Your task to perform on an android device: Go to calendar. Show me events next week Image 0: 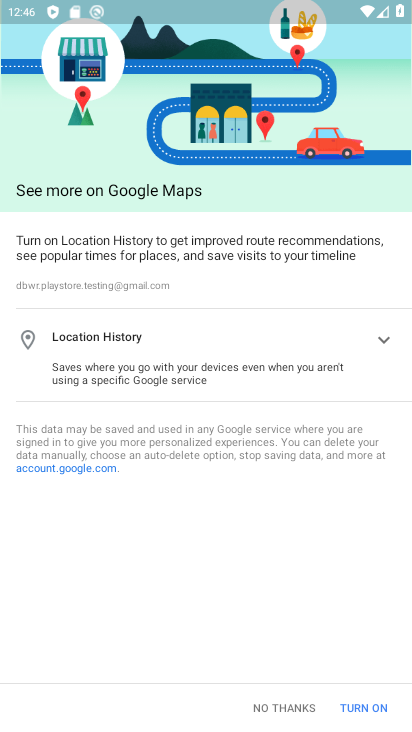
Step 0: press home button
Your task to perform on an android device: Go to calendar. Show me events next week Image 1: 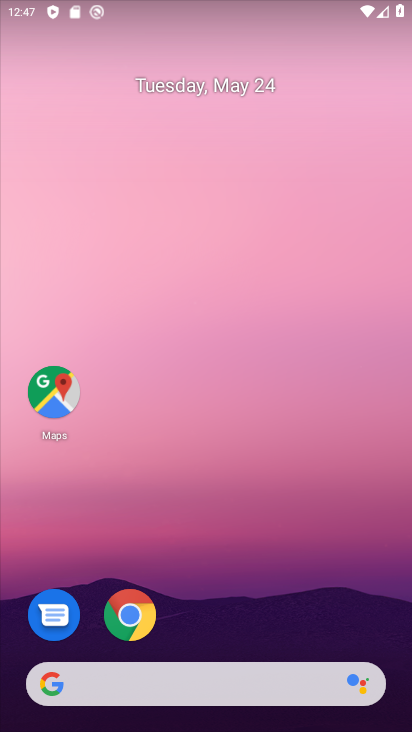
Step 1: drag from (217, 634) to (208, 151)
Your task to perform on an android device: Go to calendar. Show me events next week Image 2: 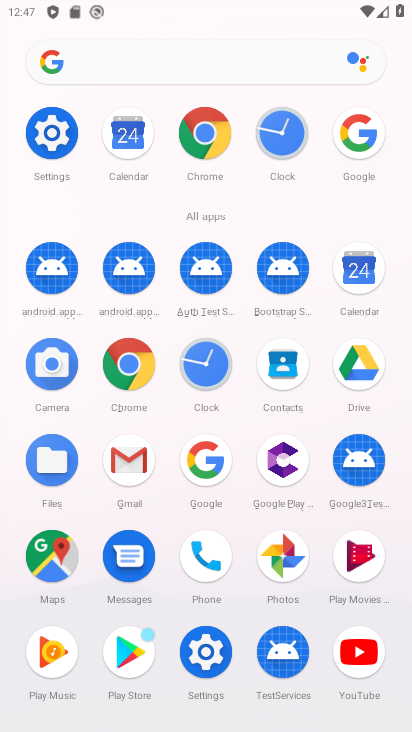
Step 2: click (357, 262)
Your task to perform on an android device: Go to calendar. Show me events next week Image 3: 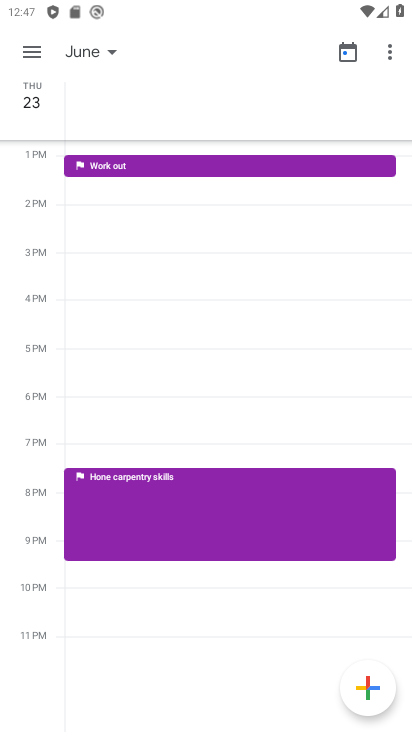
Step 3: click (36, 49)
Your task to perform on an android device: Go to calendar. Show me events next week Image 4: 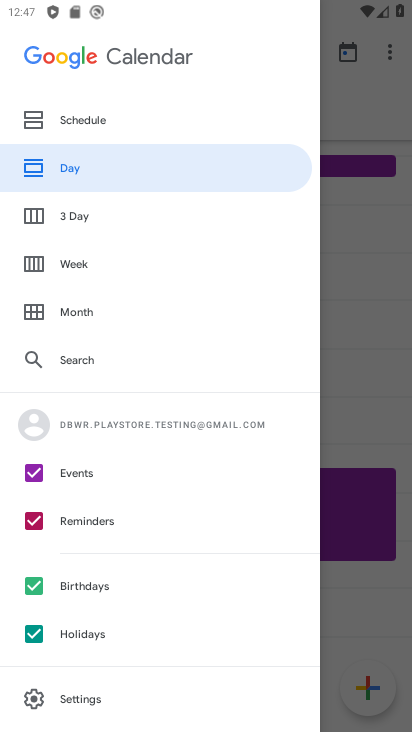
Step 4: click (86, 256)
Your task to perform on an android device: Go to calendar. Show me events next week Image 5: 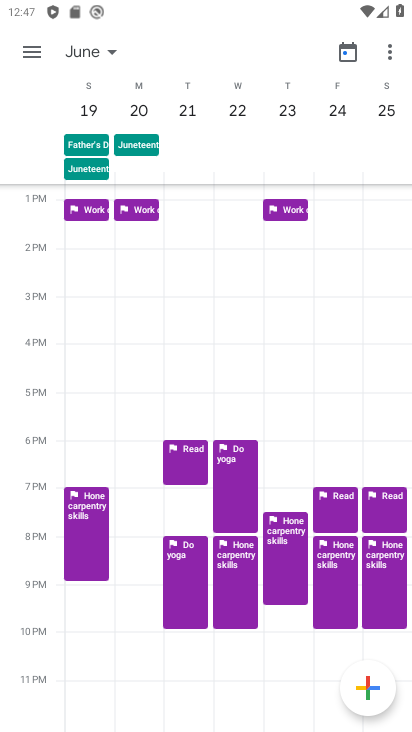
Step 5: drag from (77, 105) to (399, 110)
Your task to perform on an android device: Go to calendar. Show me events next week Image 6: 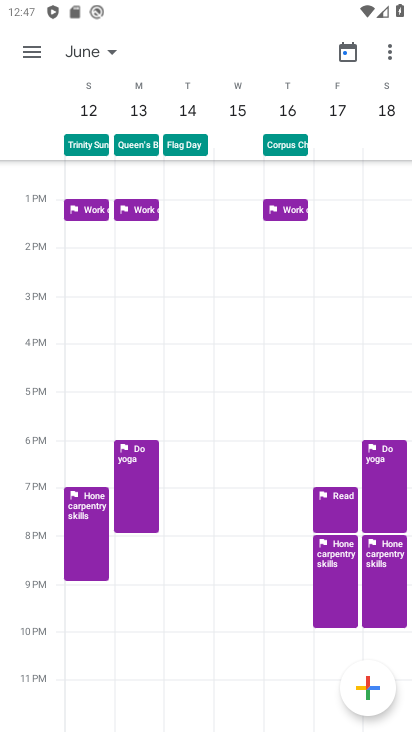
Step 6: drag from (78, 108) to (410, 100)
Your task to perform on an android device: Go to calendar. Show me events next week Image 7: 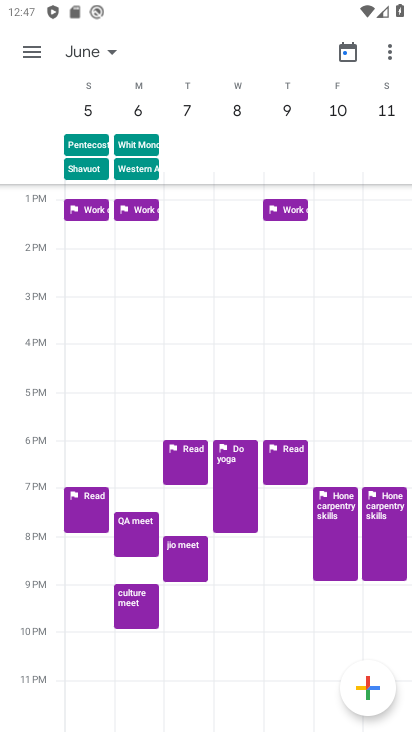
Step 7: drag from (83, 102) to (411, 110)
Your task to perform on an android device: Go to calendar. Show me events next week Image 8: 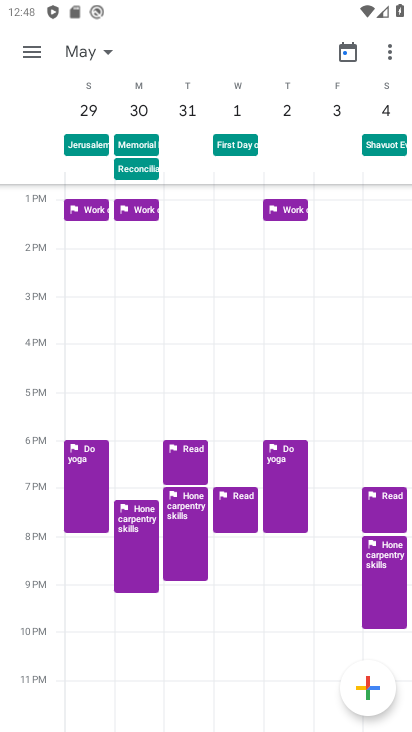
Step 8: click (83, 105)
Your task to perform on an android device: Go to calendar. Show me events next week Image 9: 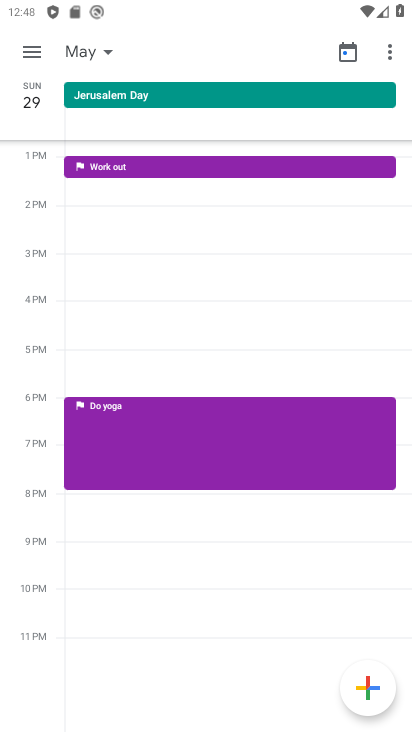
Step 9: click (46, 95)
Your task to perform on an android device: Go to calendar. Show me events next week Image 10: 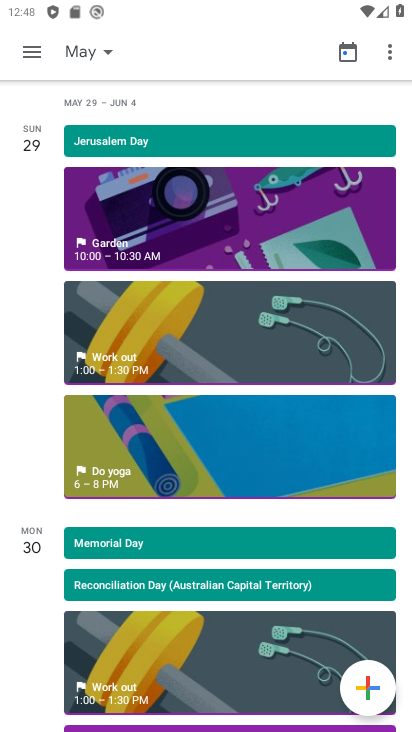
Step 10: task complete